Your task to perform on an android device: Go to calendar. Show me events next week Image 0: 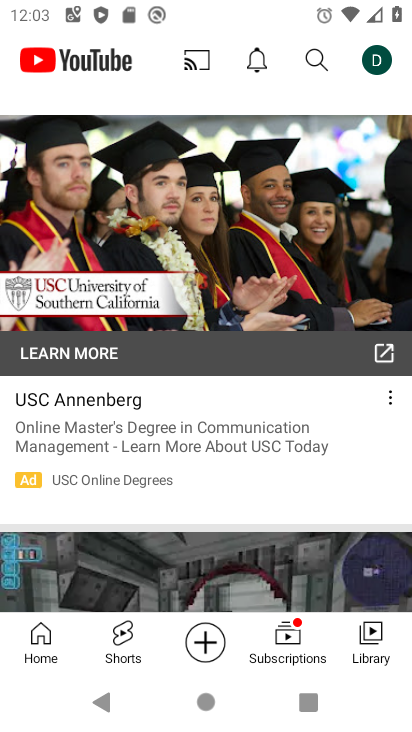
Step 0: press home button
Your task to perform on an android device: Go to calendar. Show me events next week Image 1: 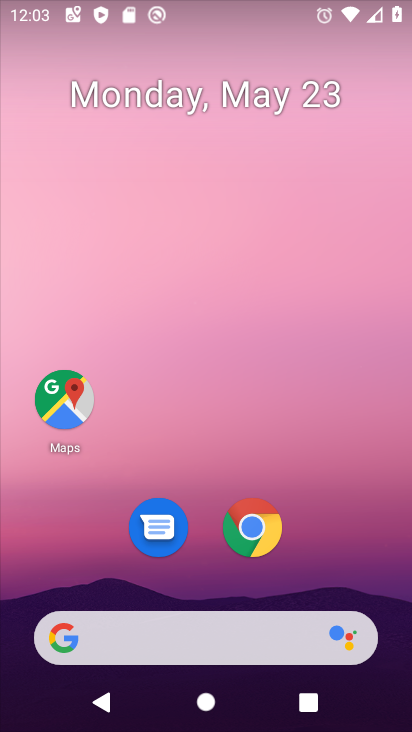
Step 1: drag from (354, 562) to (291, 141)
Your task to perform on an android device: Go to calendar. Show me events next week Image 2: 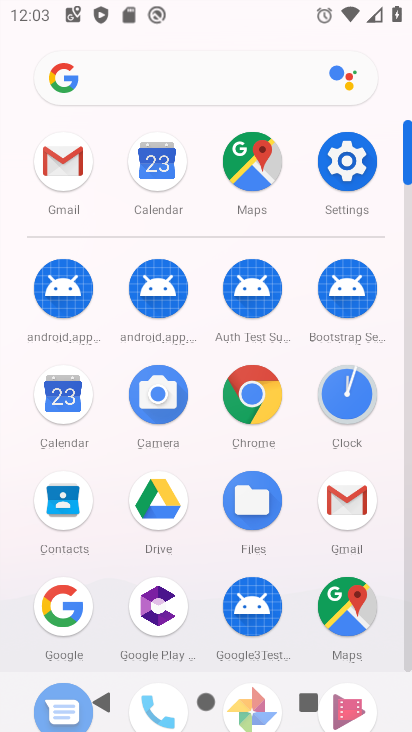
Step 2: click (333, 180)
Your task to perform on an android device: Go to calendar. Show me events next week Image 3: 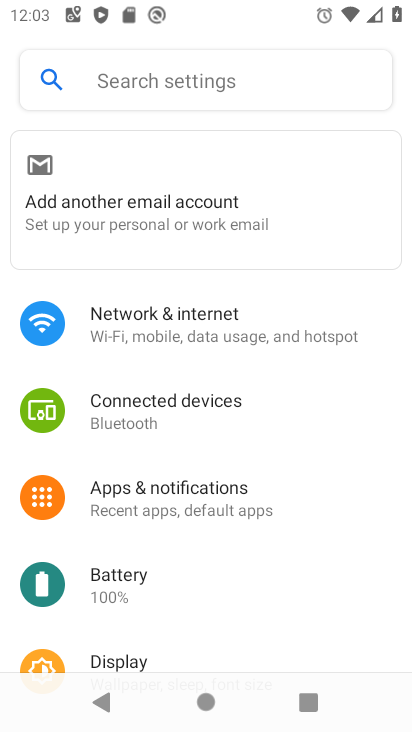
Step 3: press home button
Your task to perform on an android device: Go to calendar. Show me events next week Image 4: 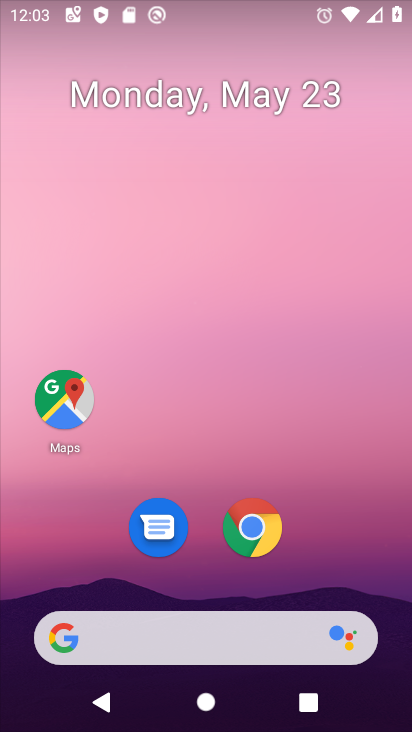
Step 4: drag from (344, 557) to (223, 15)
Your task to perform on an android device: Go to calendar. Show me events next week Image 5: 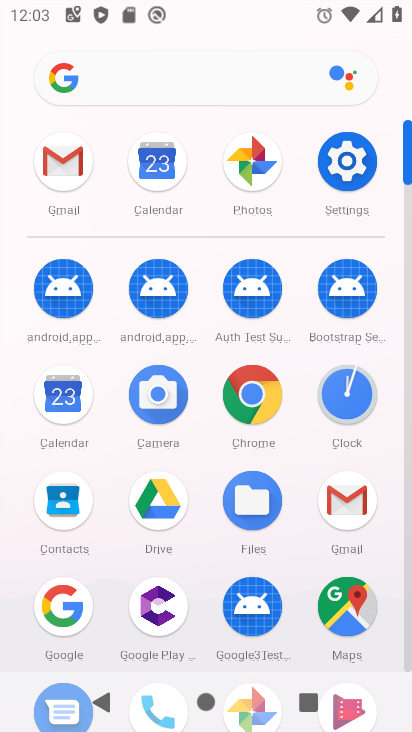
Step 5: click (77, 416)
Your task to perform on an android device: Go to calendar. Show me events next week Image 6: 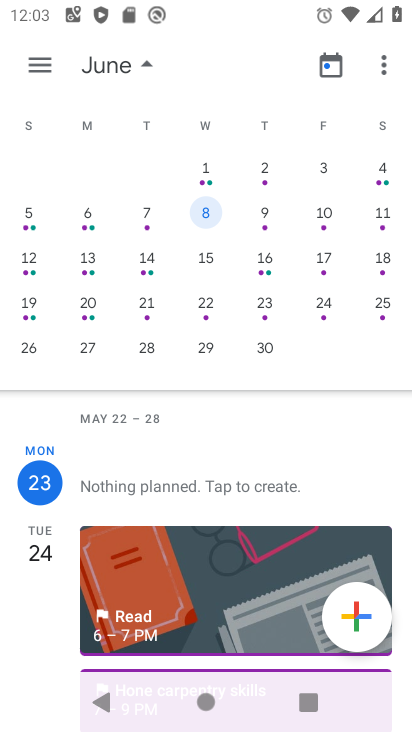
Step 6: task complete